Your task to perform on an android device: open app "Microsoft Excel" (install if not already installed) and go to login screen Image 0: 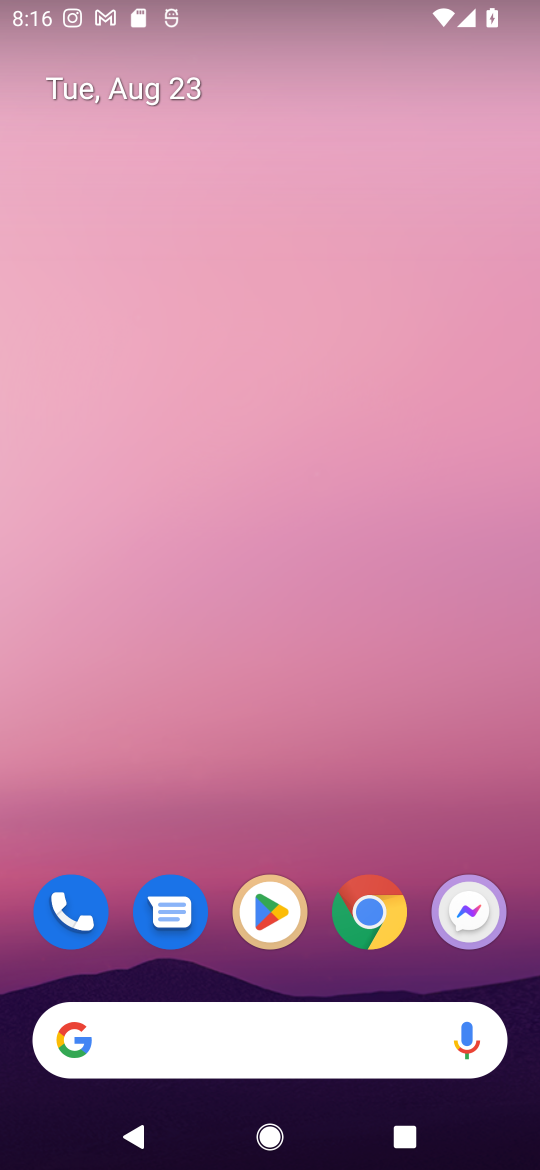
Step 0: click (262, 910)
Your task to perform on an android device: open app "Microsoft Excel" (install if not already installed) and go to login screen Image 1: 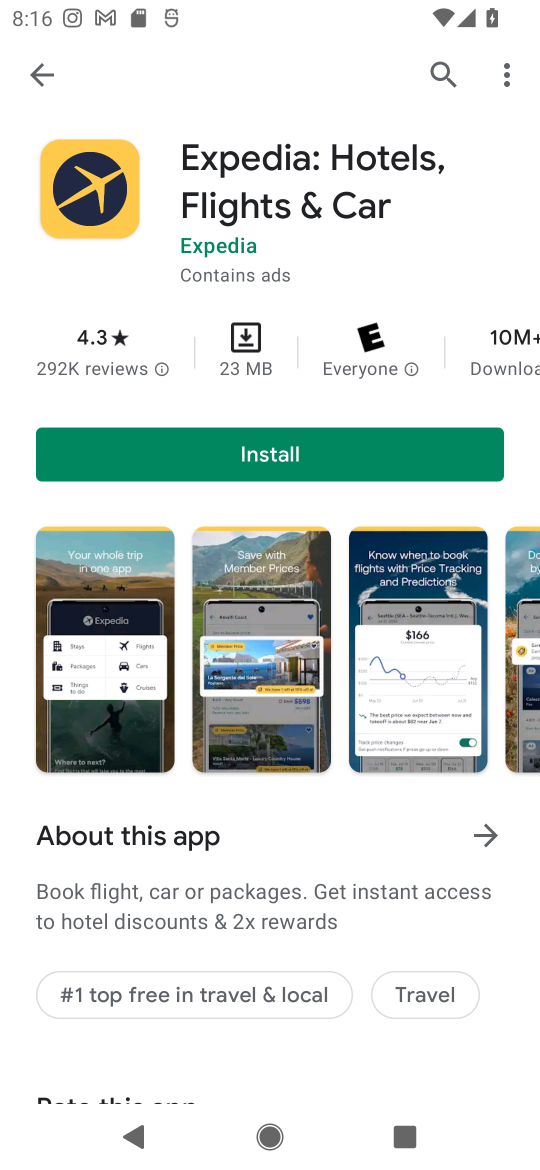
Step 1: click (437, 69)
Your task to perform on an android device: open app "Microsoft Excel" (install if not already installed) and go to login screen Image 2: 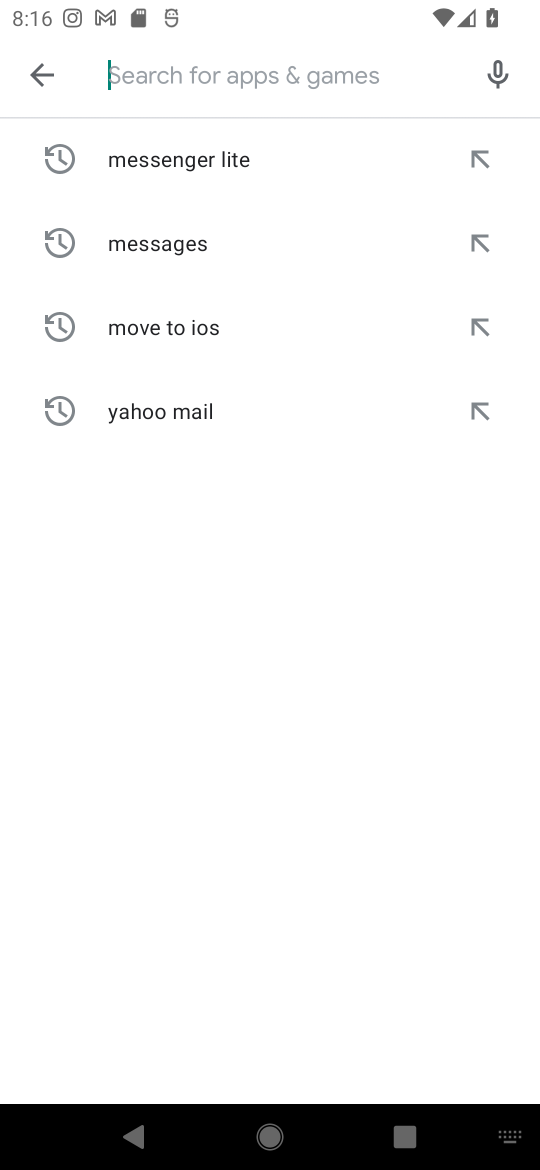
Step 2: type "Microsoft Excel"
Your task to perform on an android device: open app "Microsoft Excel" (install if not already installed) and go to login screen Image 3: 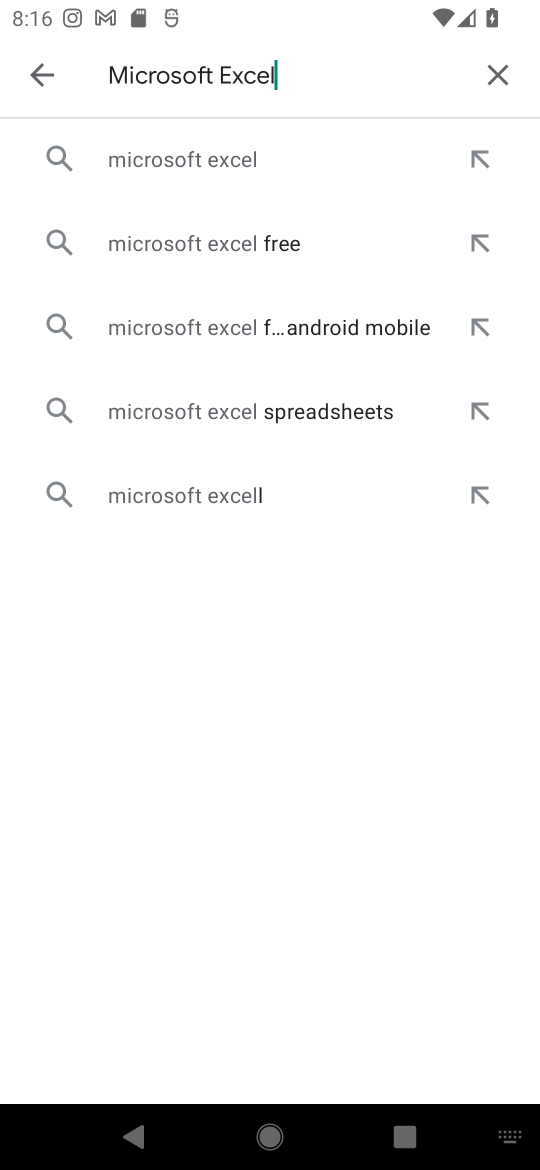
Step 3: click (201, 157)
Your task to perform on an android device: open app "Microsoft Excel" (install if not already installed) and go to login screen Image 4: 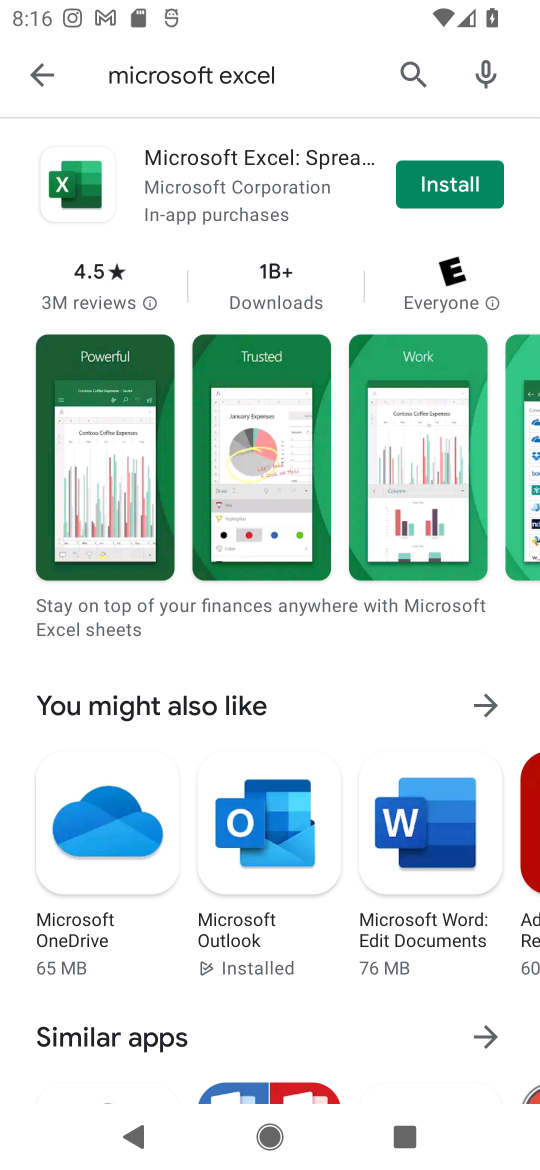
Step 4: click (463, 179)
Your task to perform on an android device: open app "Microsoft Excel" (install if not already installed) and go to login screen Image 5: 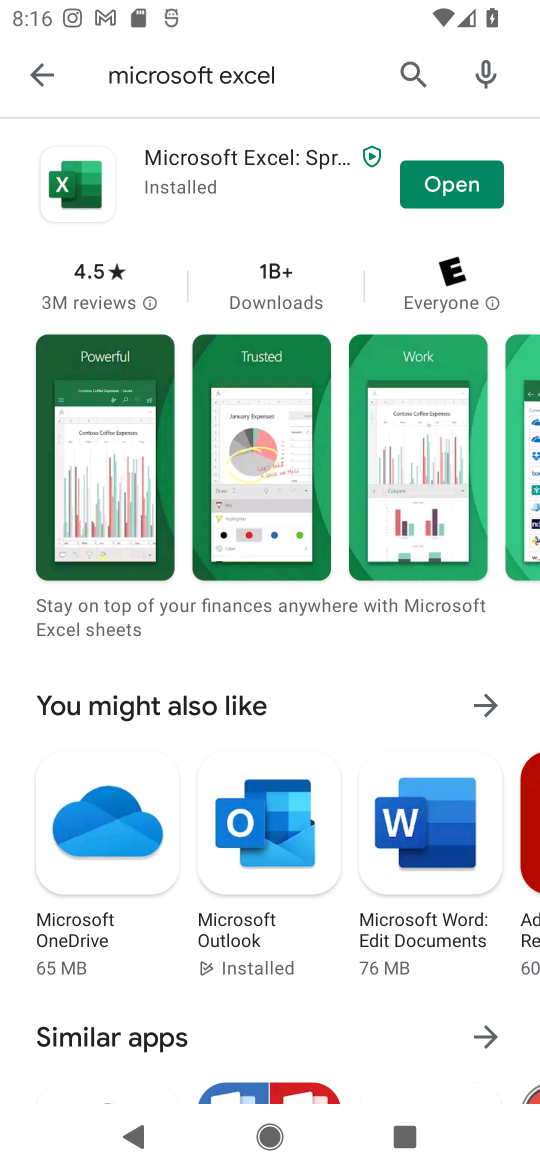
Step 5: click (463, 180)
Your task to perform on an android device: open app "Microsoft Excel" (install if not already installed) and go to login screen Image 6: 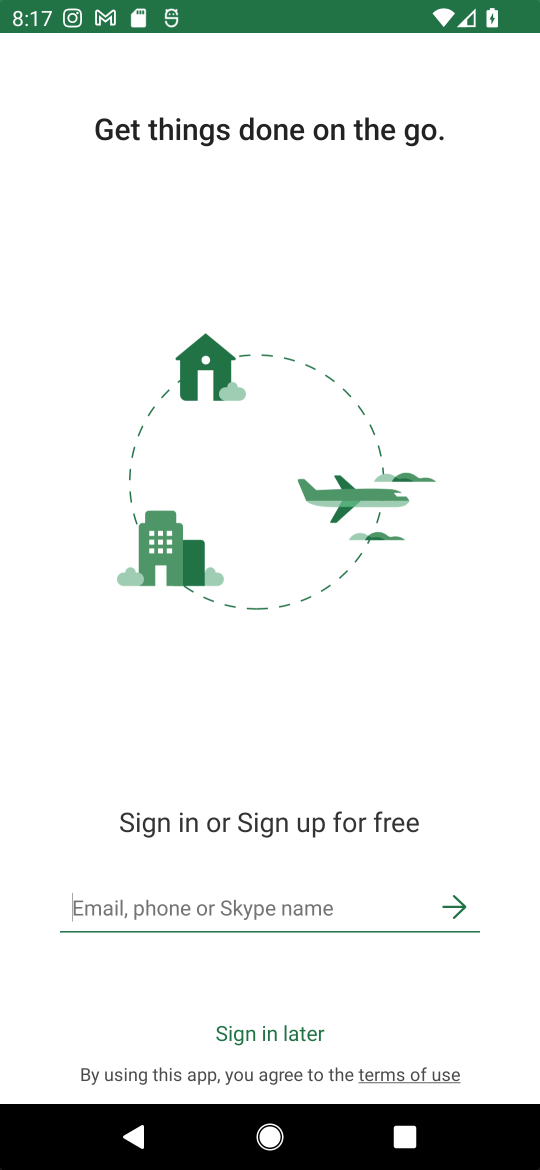
Step 6: task complete